Your task to perform on an android device: empty trash in google photos Image 0: 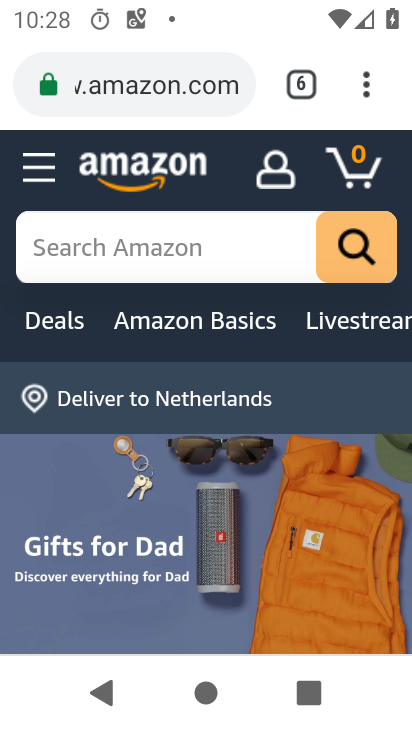
Step 0: press home button
Your task to perform on an android device: empty trash in google photos Image 1: 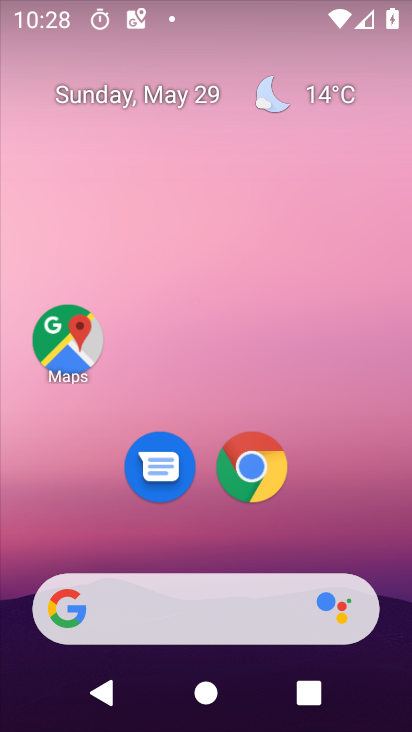
Step 1: drag from (199, 539) to (201, 223)
Your task to perform on an android device: empty trash in google photos Image 2: 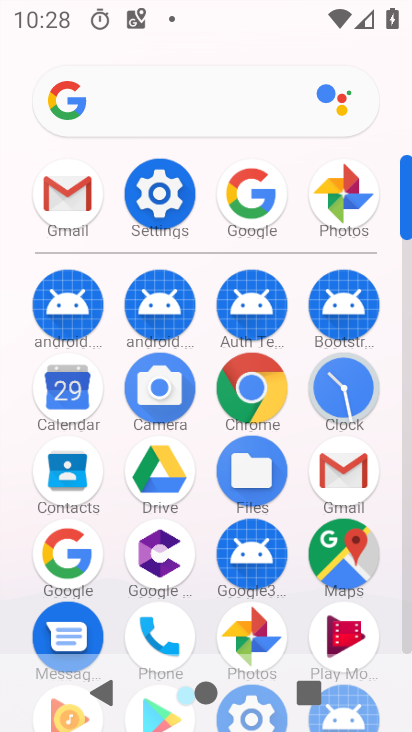
Step 2: click (345, 206)
Your task to perform on an android device: empty trash in google photos Image 3: 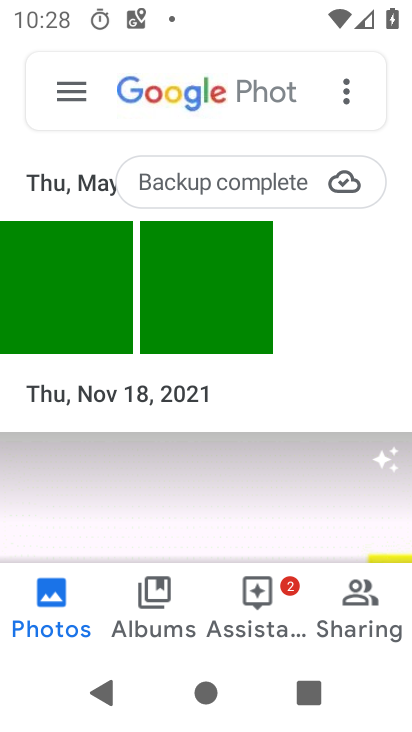
Step 3: click (77, 91)
Your task to perform on an android device: empty trash in google photos Image 4: 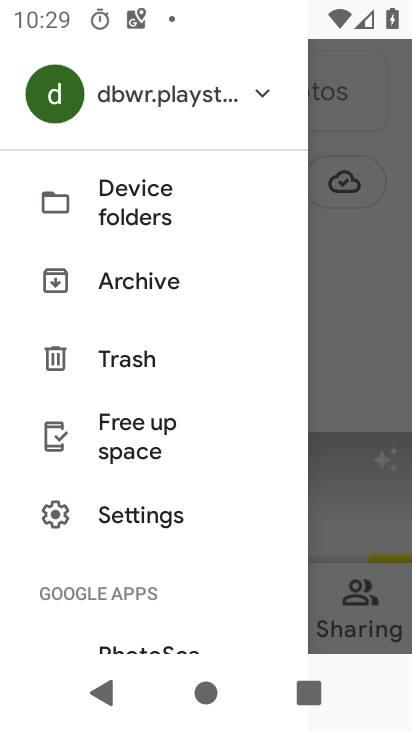
Step 4: drag from (144, 478) to (135, 262)
Your task to perform on an android device: empty trash in google photos Image 5: 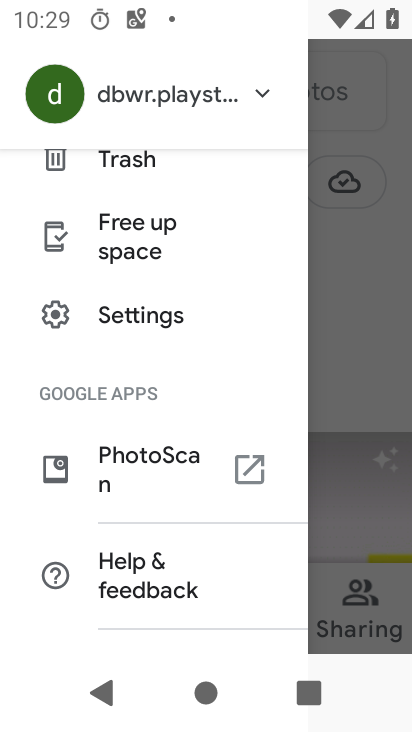
Step 5: click (125, 170)
Your task to perform on an android device: empty trash in google photos Image 6: 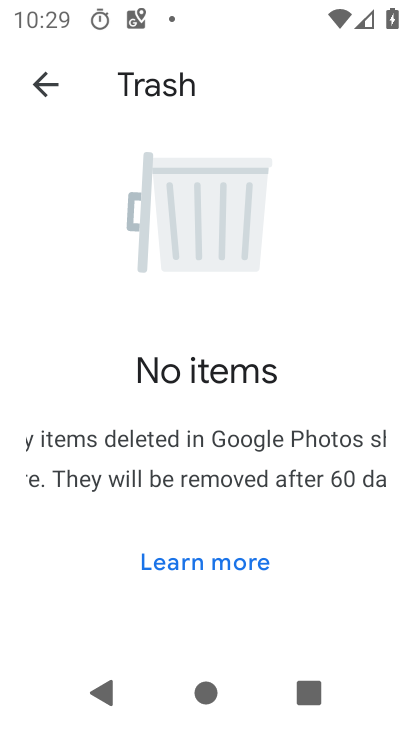
Step 6: task complete